Your task to perform on an android device: turn off picture-in-picture Image 0: 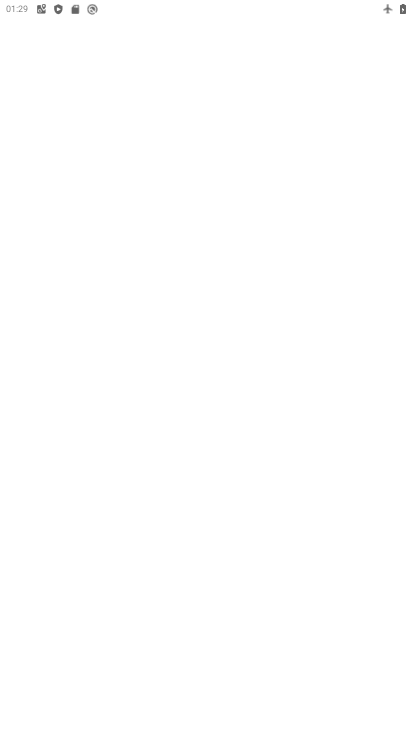
Step 0: drag from (212, 643) to (211, 542)
Your task to perform on an android device: turn off picture-in-picture Image 1: 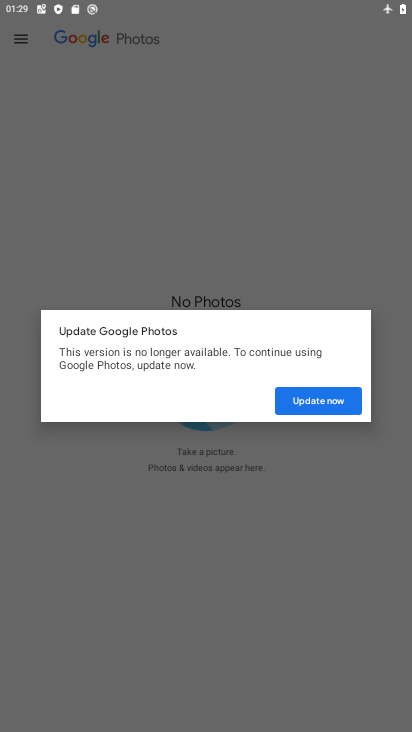
Step 1: press home button
Your task to perform on an android device: turn off picture-in-picture Image 2: 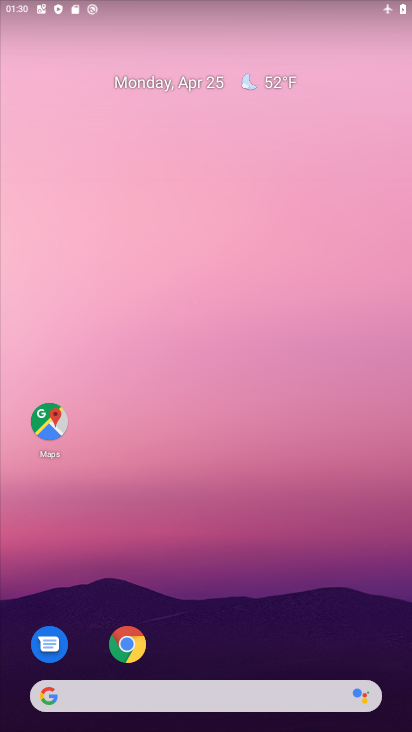
Step 2: drag from (289, 649) to (296, 37)
Your task to perform on an android device: turn off picture-in-picture Image 3: 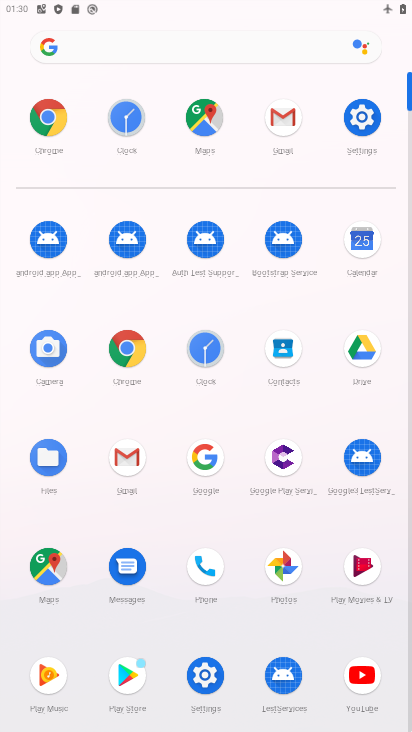
Step 3: click (283, 119)
Your task to perform on an android device: turn off picture-in-picture Image 4: 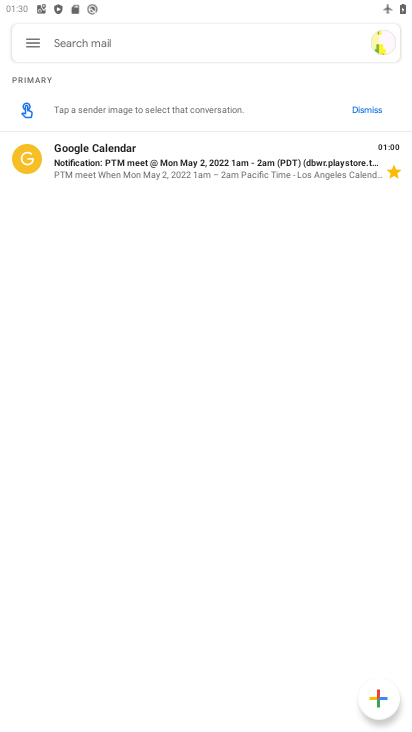
Step 4: press home button
Your task to perform on an android device: turn off picture-in-picture Image 5: 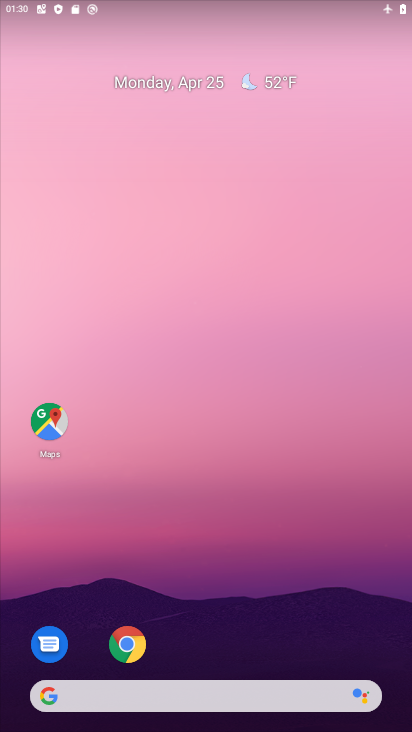
Step 5: drag from (197, 615) to (268, 0)
Your task to perform on an android device: turn off picture-in-picture Image 6: 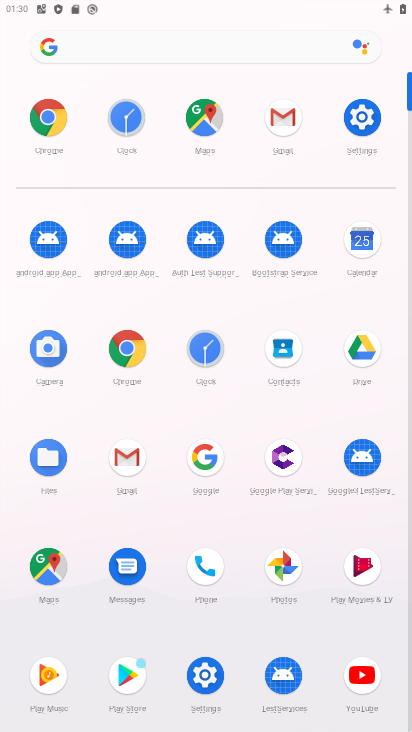
Step 6: click (355, 125)
Your task to perform on an android device: turn off picture-in-picture Image 7: 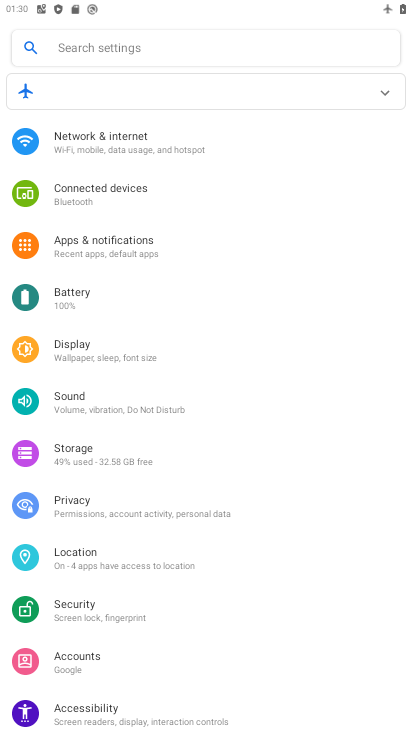
Step 7: drag from (192, 540) to (177, 206)
Your task to perform on an android device: turn off picture-in-picture Image 8: 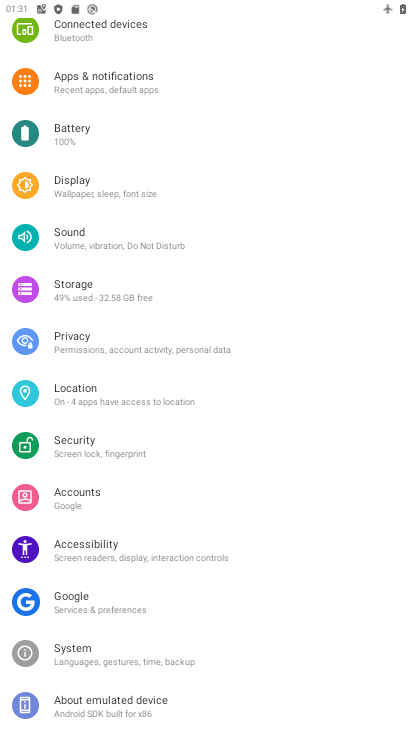
Step 8: click (138, 403)
Your task to perform on an android device: turn off picture-in-picture Image 9: 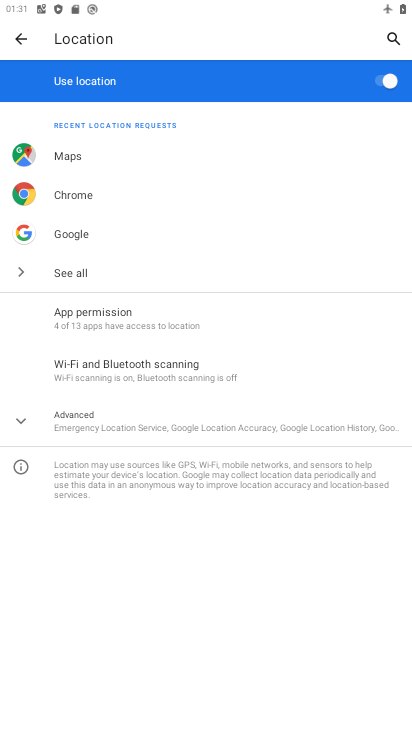
Step 9: click (81, 424)
Your task to perform on an android device: turn off picture-in-picture Image 10: 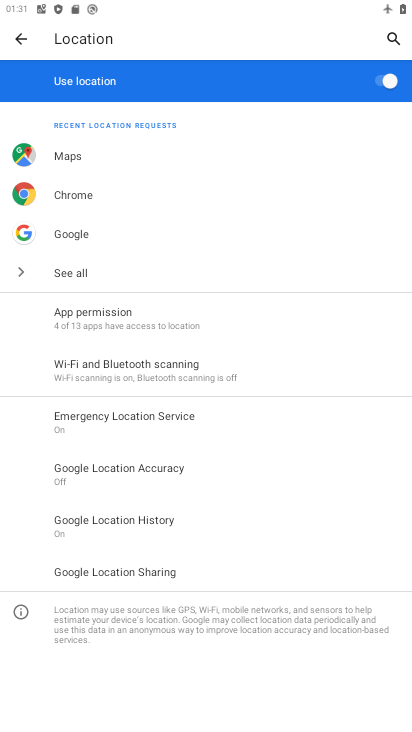
Step 10: task complete